Your task to perform on an android device: show emergency info Image 0: 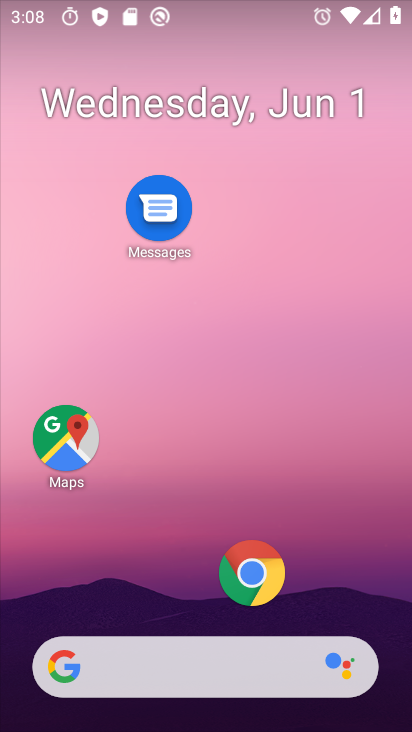
Step 0: drag from (180, 607) to (178, 262)
Your task to perform on an android device: show emergency info Image 1: 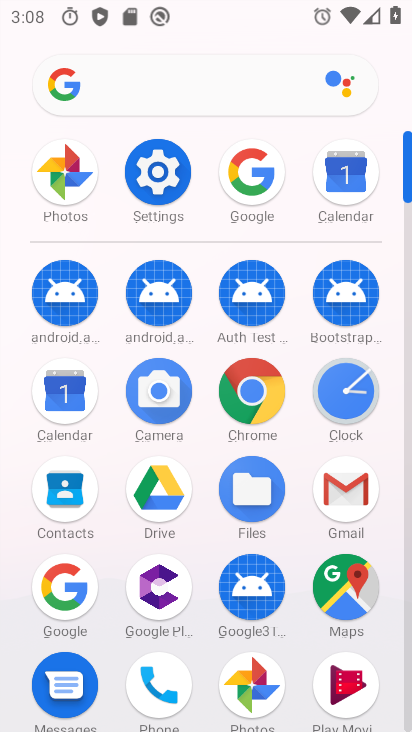
Step 1: click (162, 194)
Your task to perform on an android device: show emergency info Image 2: 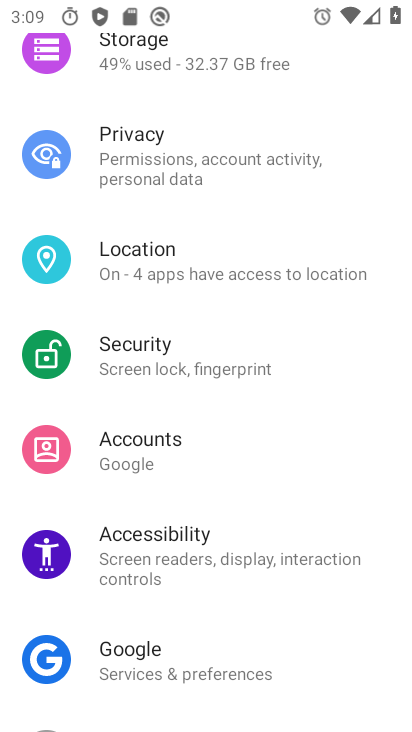
Step 2: drag from (183, 648) to (188, 310)
Your task to perform on an android device: show emergency info Image 3: 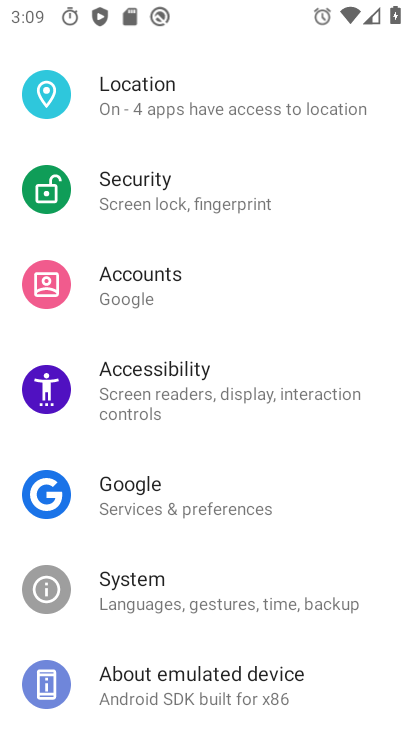
Step 3: click (161, 669)
Your task to perform on an android device: show emergency info Image 4: 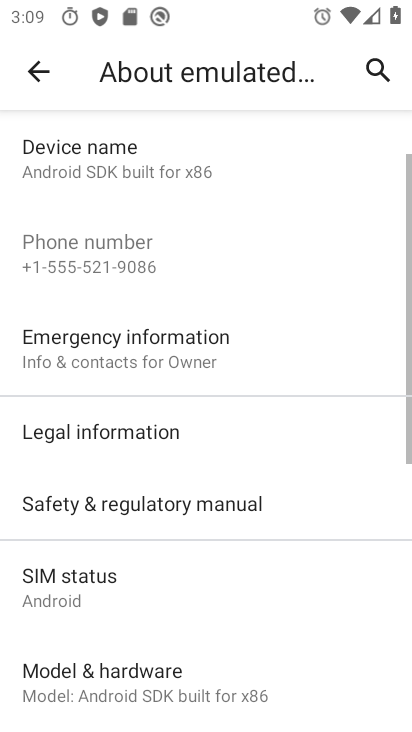
Step 4: click (160, 370)
Your task to perform on an android device: show emergency info Image 5: 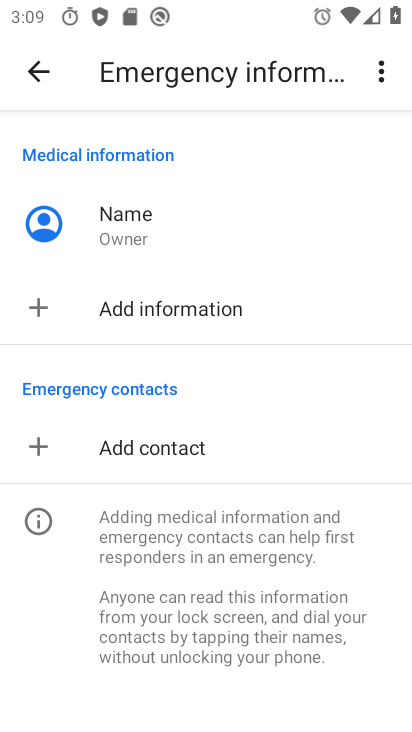
Step 5: task complete